Your task to perform on an android device: Go to accessibility settings Image 0: 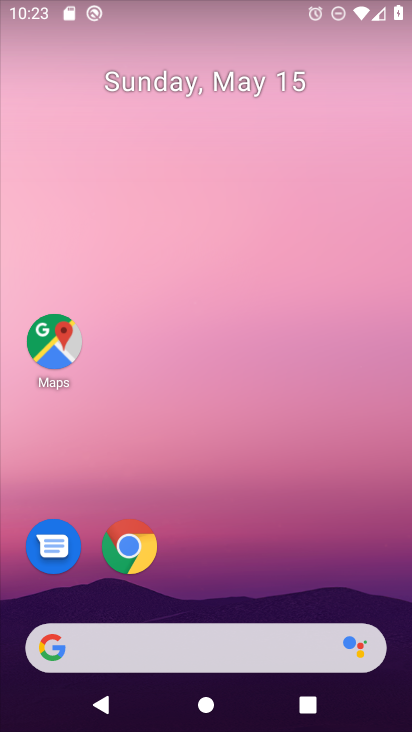
Step 0: drag from (224, 550) to (284, 182)
Your task to perform on an android device: Go to accessibility settings Image 1: 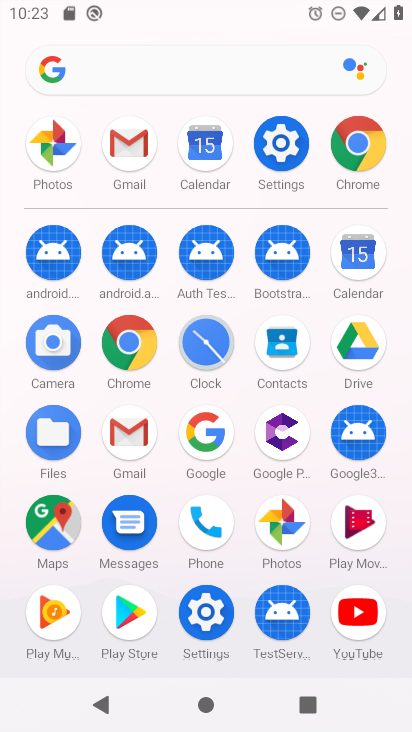
Step 1: click (290, 149)
Your task to perform on an android device: Go to accessibility settings Image 2: 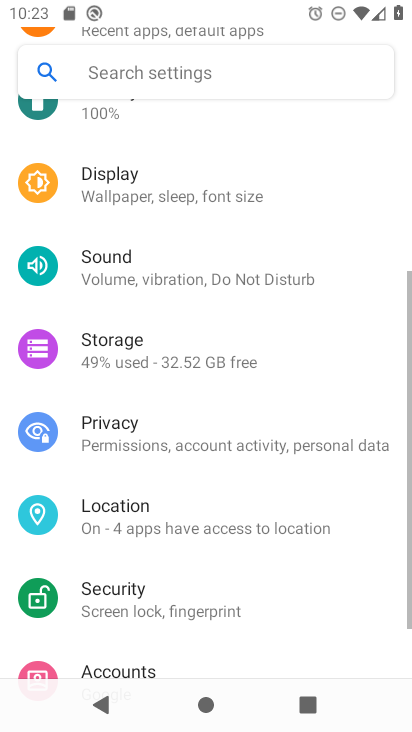
Step 2: drag from (218, 593) to (392, 128)
Your task to perform on an android device: Go to accessibility settings Image 3: 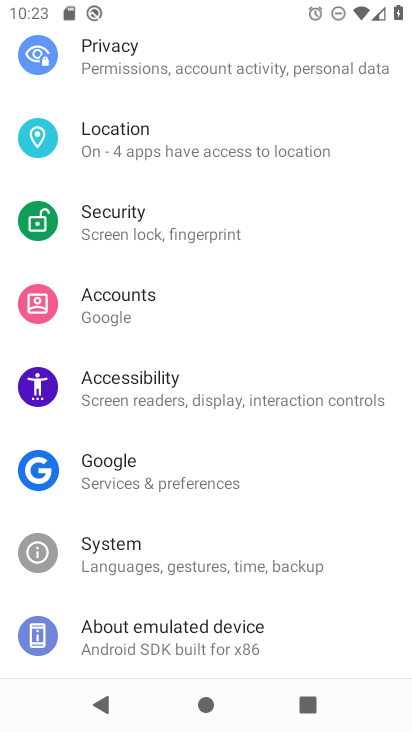
Step 3: click (174, 385)
Your task to perform on an android device: Go to accessibility settings Image 4: 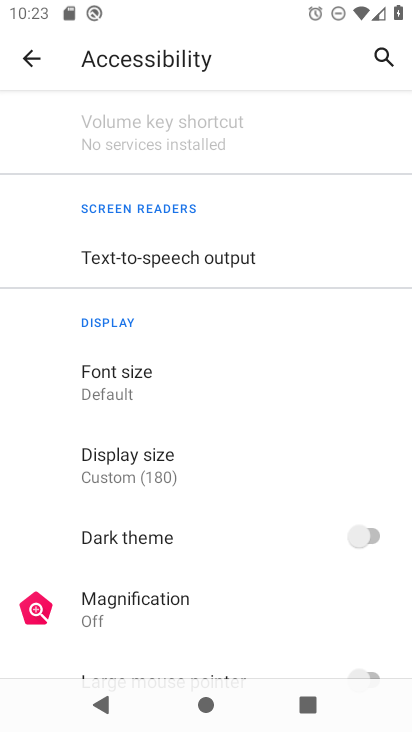
Step 4: task complete